Your task to perform on an android device: show emergency info Image 0: 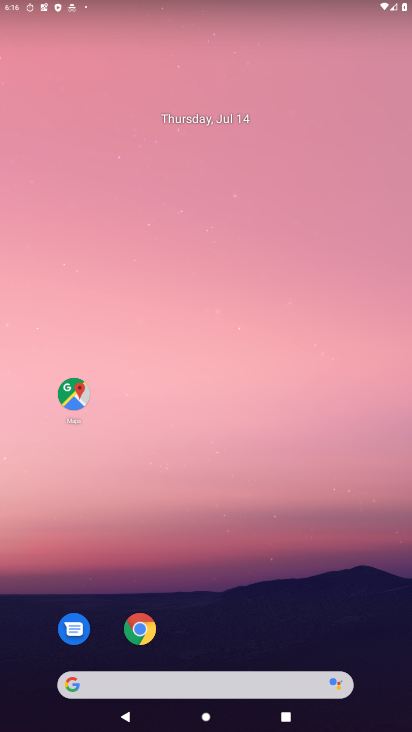
Step 0: drag from (147, 679) to (172, 0)
Your task to perform on an android device: show emergency info Image 1: 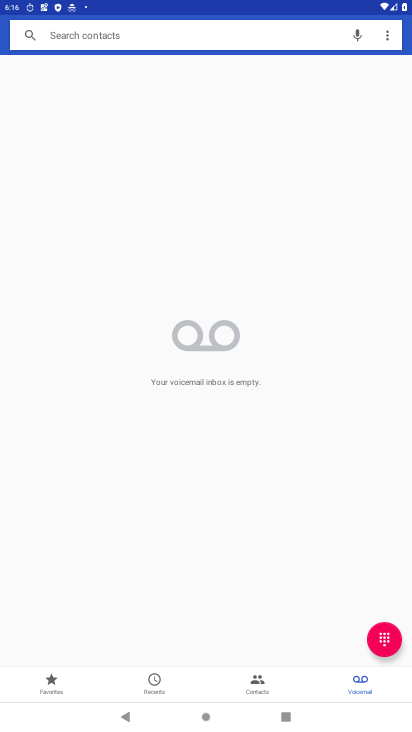
Step 1: press home button
Your task to perform on an android device: show emergency info Image 2: 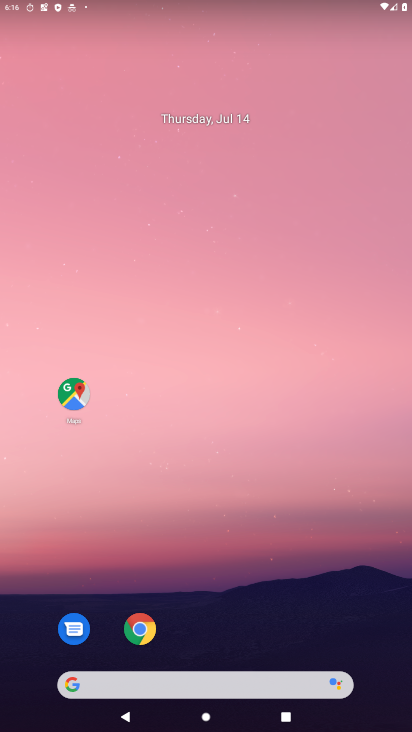
Step 2: drag from (254, 678) to (322, 86)
Your task to perform on an android device: show emergency info Image 3: 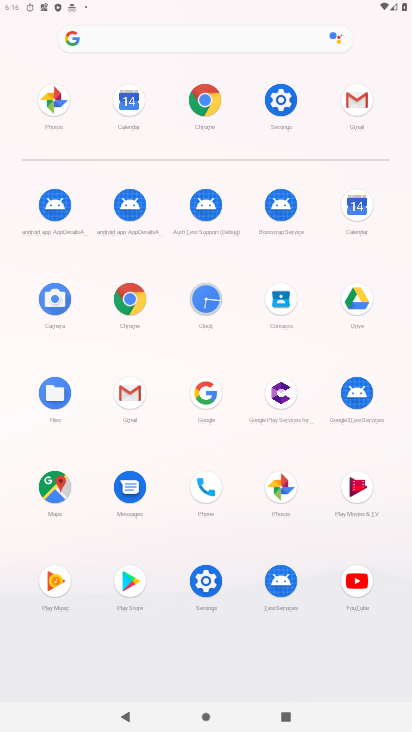
Step 3: click (280, 91)
Your task to perform on an android device: show emergency info Image 4: 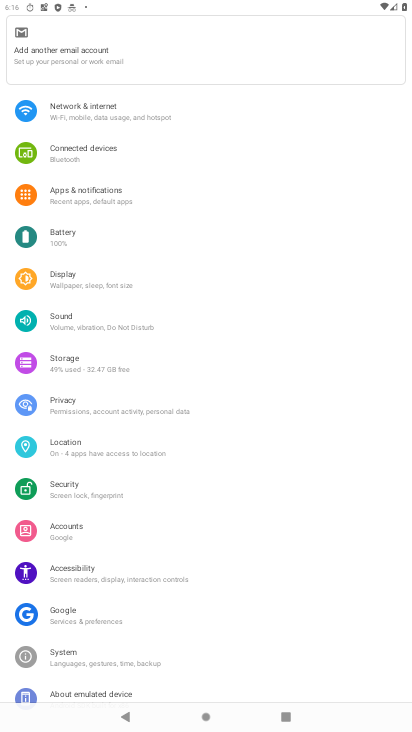
Step 4: drag from (141, 630) to (187, 142)
Your task to perform on an android device: show emergency info Image 5: 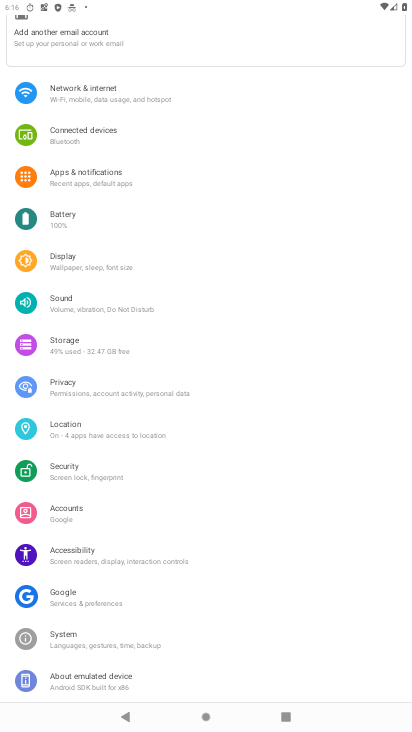
Step 5: click (148, 684)
Your task to perform on an android device: show emergency info Image 6: 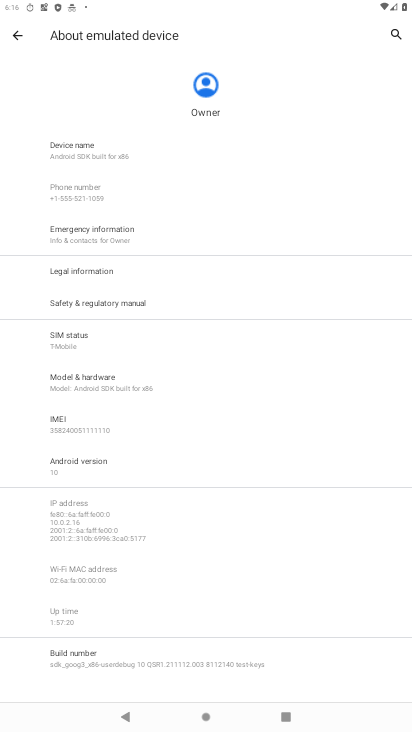
Step 6: click (130, 237)
Your task to perform on an android device: show emergency info Image 7: 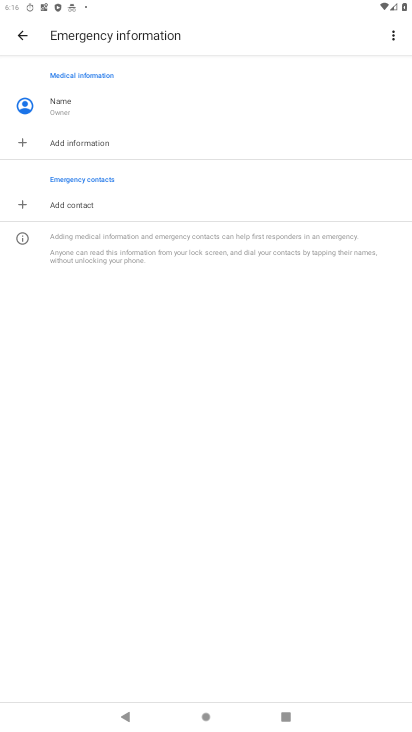
Step 7: task complete